Your task to perform on an android device: toggle sleep mode Image 0: 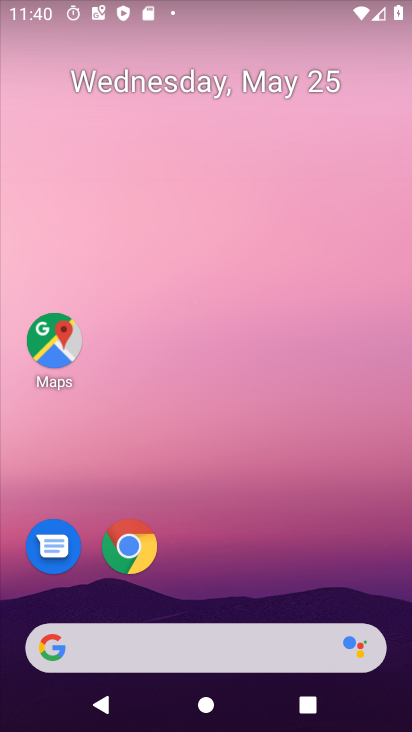
Step 0: drag from (220, 578) to (188, 17)
Your task to perform on an android device: toggle sleep mode Image 1: 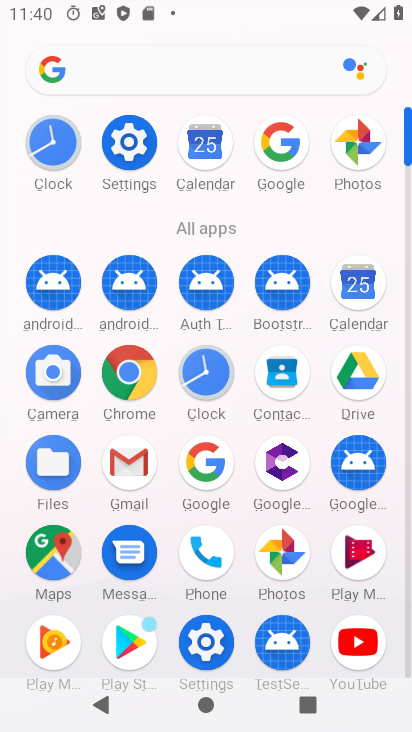
Step 1: click (126, 149)
Your task to perform on an android device: toggle sleep mode Image 2: 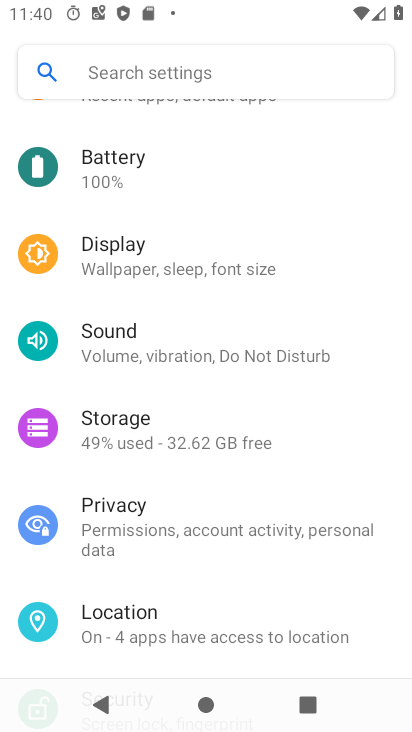
Step 2: task complete